Your task to perform on an android device: Open the map Image 0: 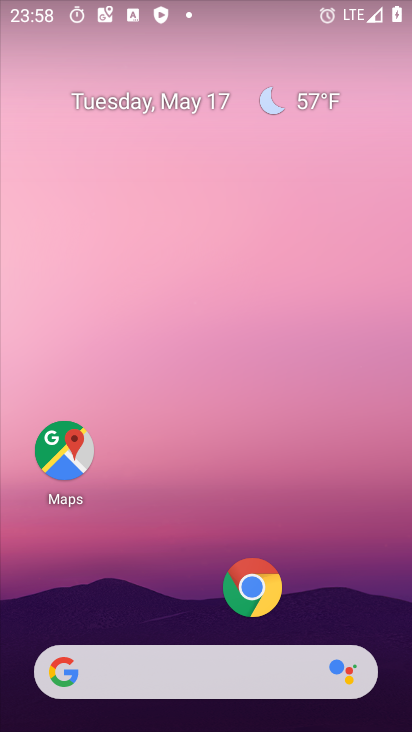
Step 0: drag from (15, 603) to (214, 677)
Your task to perform on an android device: Open the map Image 1: 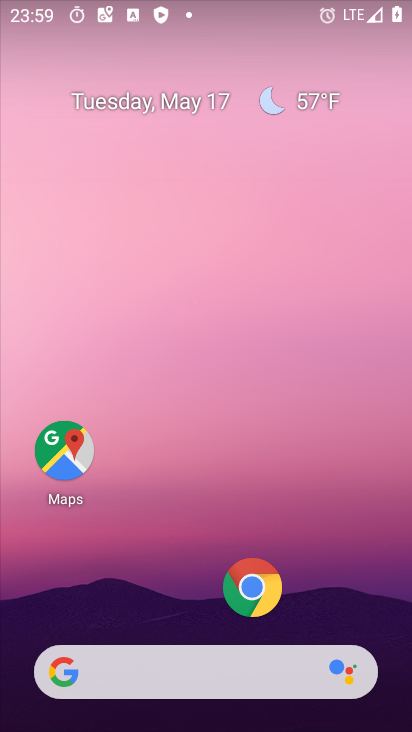
Step 1: click (41, 441)
Your task to perform on an android device: Open the map Image 2: 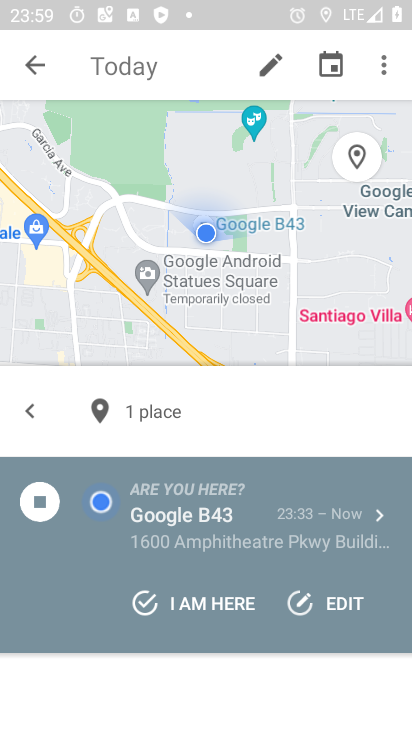
Step 2: click (29, 73)
Your task to perform on an android device: Open the map Image 3: 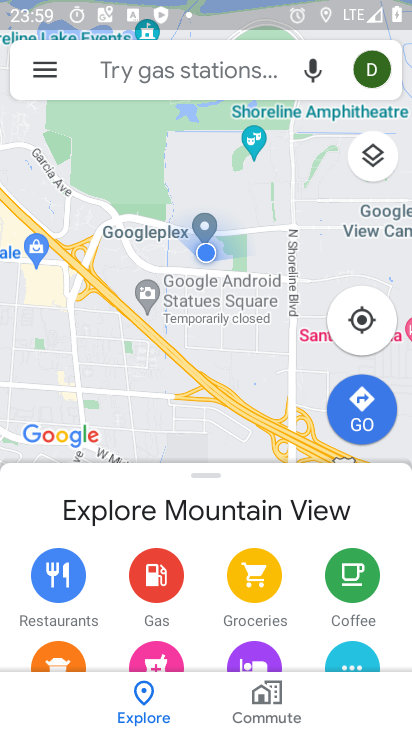
Step 3: task complete